Your task to perform on an android device: Open sound settings Image 0: 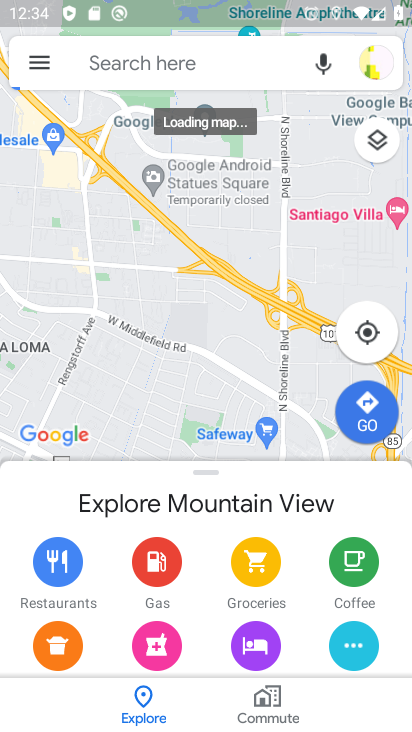
Step 0: press home button
Your task to perform on an android device: Open sound settings Image 1: 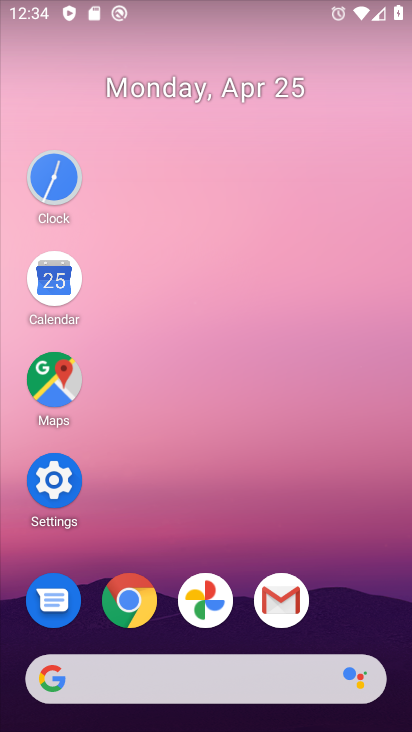
Step 1: click (51, 480)
Your task to perform on an android device: Open sound settings Image 2: 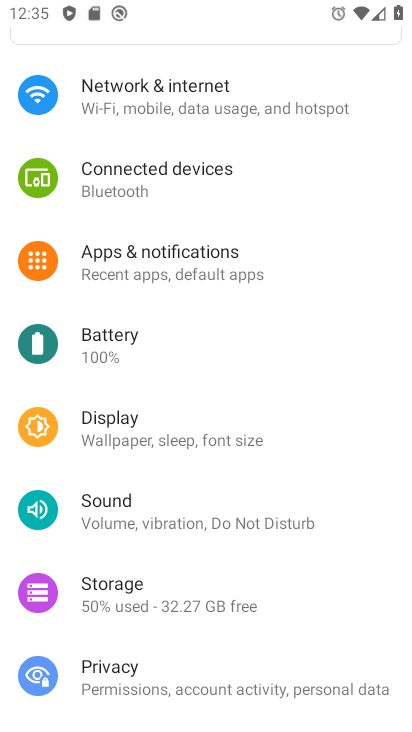
Step 2: click (108, 501)
Your task to perform on an android device: Open sound settings Image 3: 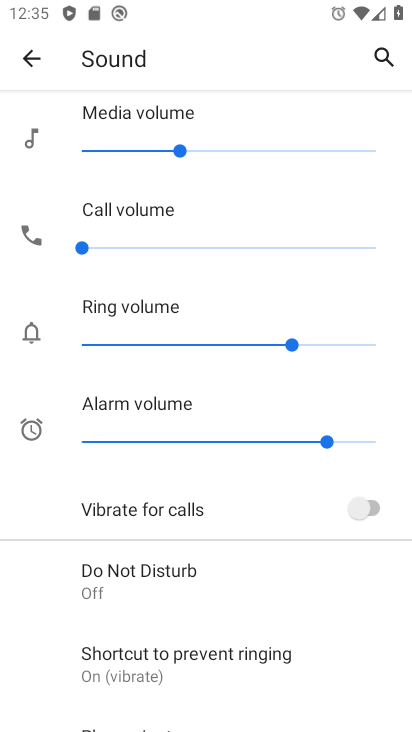
Step 3: task complete